Your task to perform on an android device: Open internet settings Image 0: 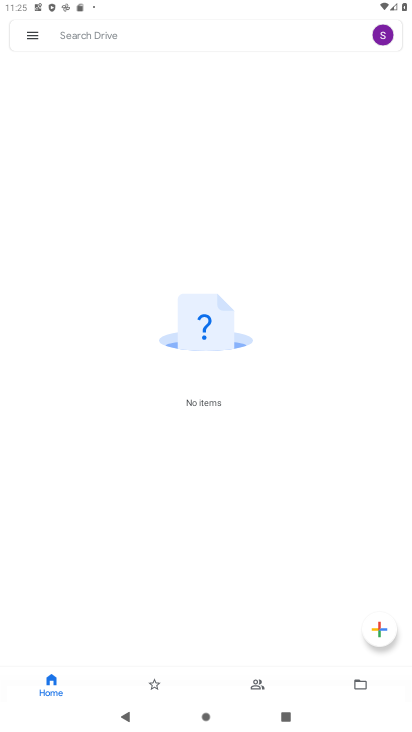
Step 0: press home button
Your task to perform on an android device: Open internet settings Image 1: 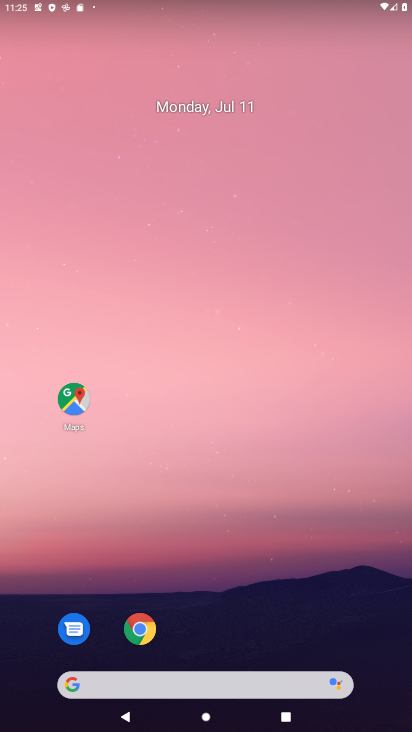
Step 1: drag from (291, 628) to (315, 203)
Your task to perform on an android device: Open internet settings Image 2: 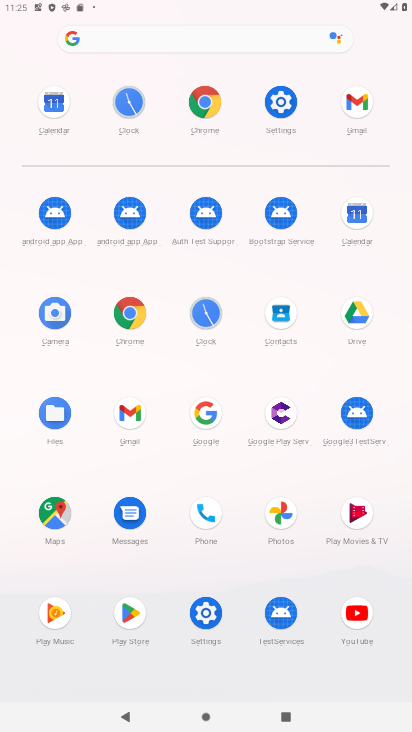
Step 2: click (289, 105)
Your task to perform on an android device: Open internet settings Image 3: 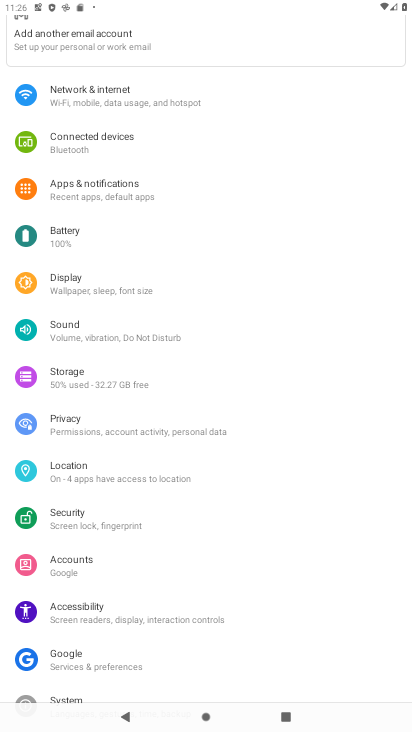
Step 3: click (215, 108)
Your task to perform on an android device: Open internet settings Image 4: 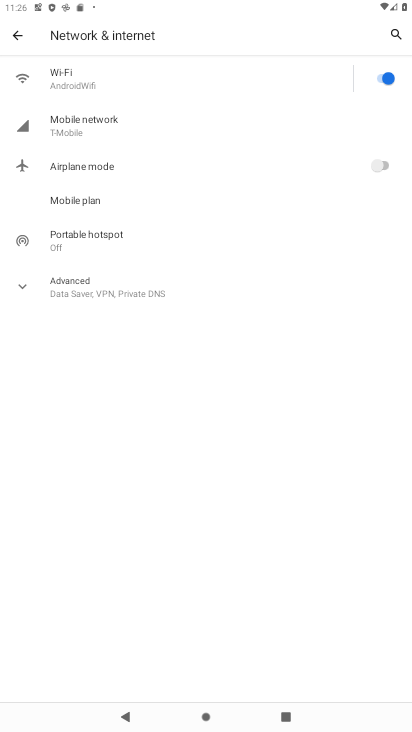
Step 4: task complete